Your task to perform on an android device: Open location settings Image 0: 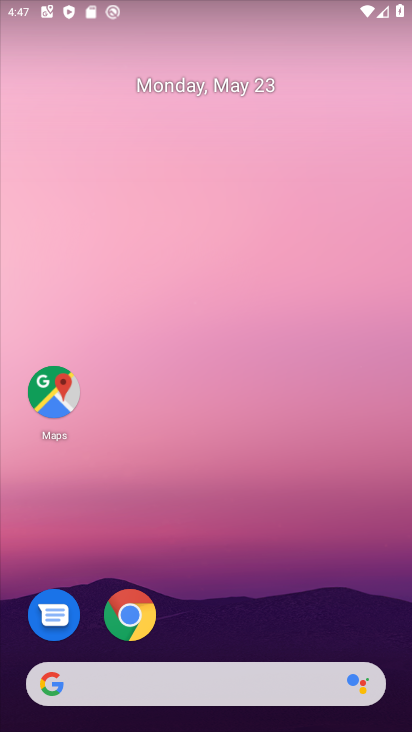
Step 0: drag from (319, 606) to (353, 16)
Your task to perform on an android device: Open location settings Image 1: 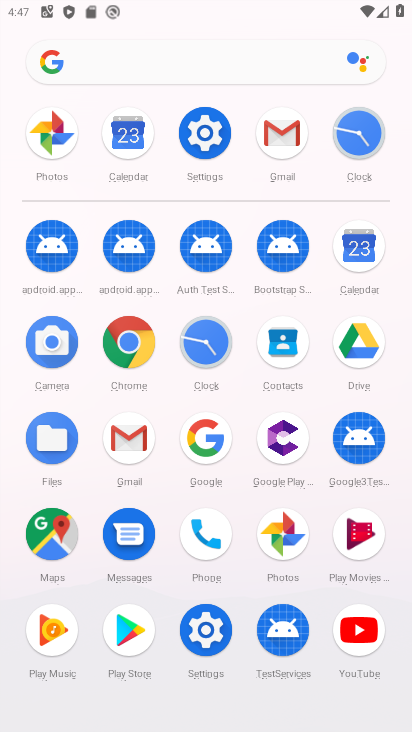
Step 1: click (197, 125)
Your task to perform on an android device: Open location settings Image 2: 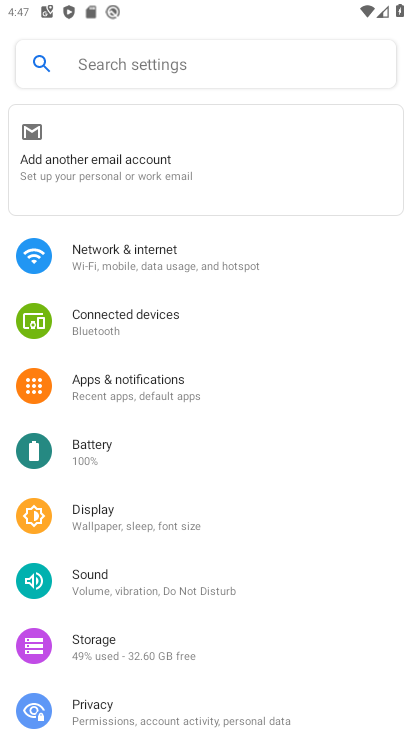
Step 2: drag from (206, 601) to (243, 233)
Your task to perform on an android device: Open location settings Image 3: 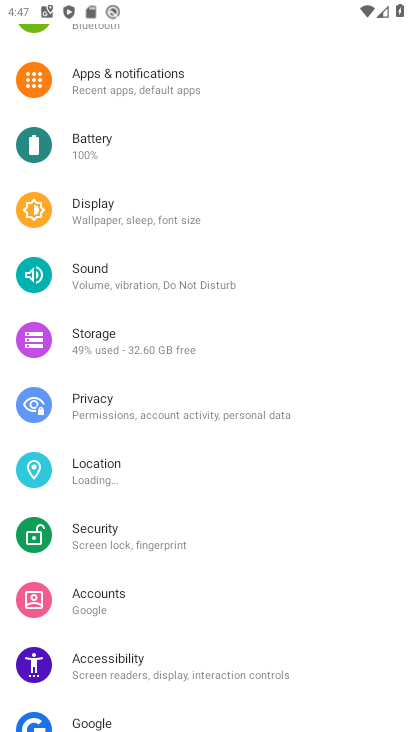
Step 3: click (84, 461)
Your task to perform on an android device: Open location settings Image 4: 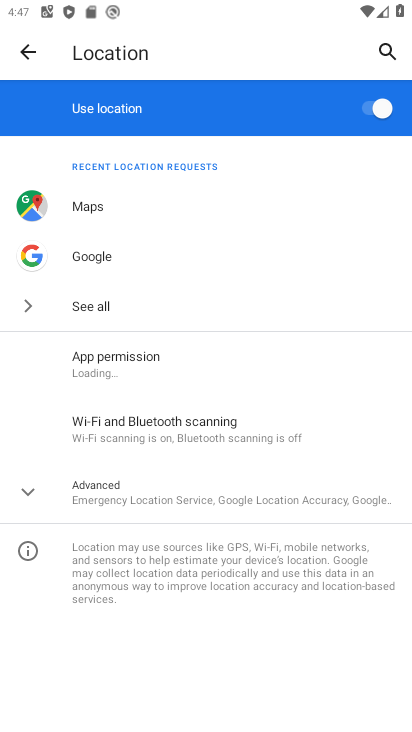
Step 4: task complete